Your task to perform on an android device: Open the calendar and show me this week's events? Image 0: 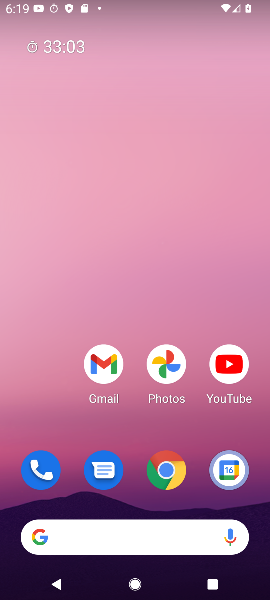
Step 0: drag from (198, 493) to (253, 73)
Your task to perform on an android device: Open the calendar and show me this week's events? Image 1: 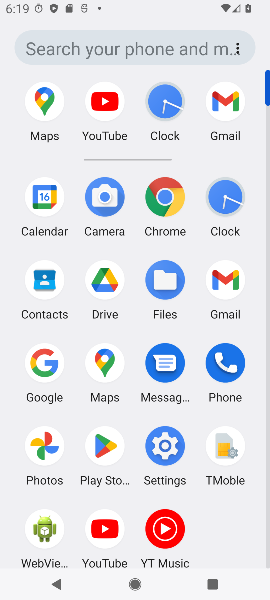
Step 1: click (41, 195)
Your task to perform on an android device: Open the calendar and show me this week's events? Image 2: 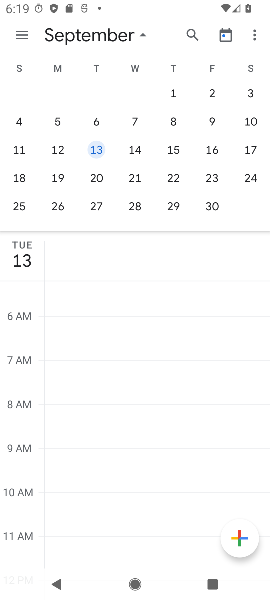
Step 2: drag from (95, 131) to (244, 165)
Your task to perform on an android device: Open the calendar and show me this week's events? Image 3: 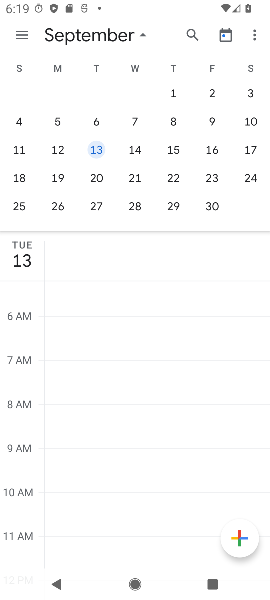
Step 3: drag from (40, 98) to (256, 163)
Your task to perform on an android device: Open the calendar and show me this week's events? Image 4: 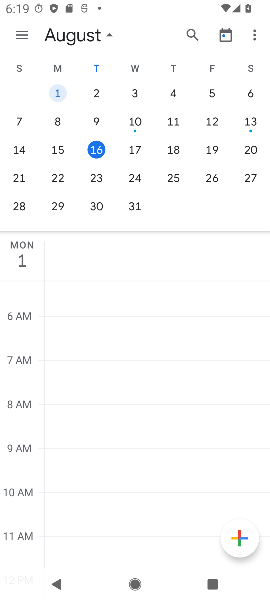
Step 4: click (97, 148)
Your task to perform on an android device: Open the calendar and show me this week's events? Image 5: 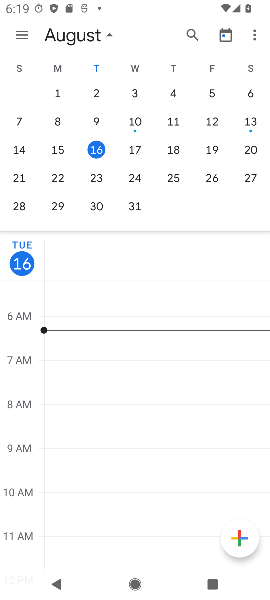
Step 5: click (136, 146)
Your task to perform on an android device: Open the calendar and show me this week's events? Image 6: 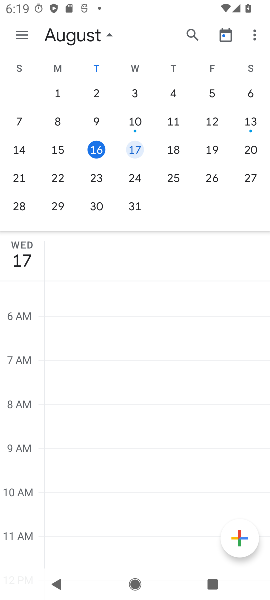
Step 6: click (18, 31)
Your task to perform on an android device: Open the calendar and show me this week's events? Image 7: 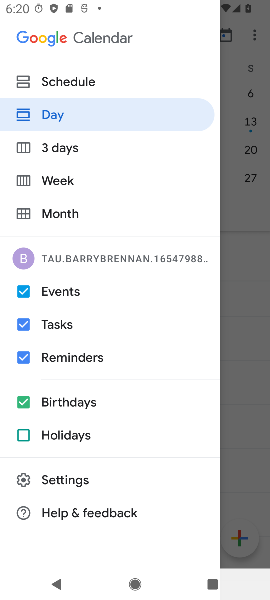
Step 7: click (56, 79)
Your task to perform on an android device: Open the calendar and show me this week's events? Image 8: 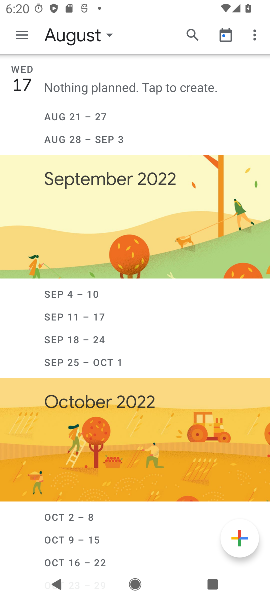
Step 8: task complete